Your task to perform on an android device: Go to location settings Image 0: 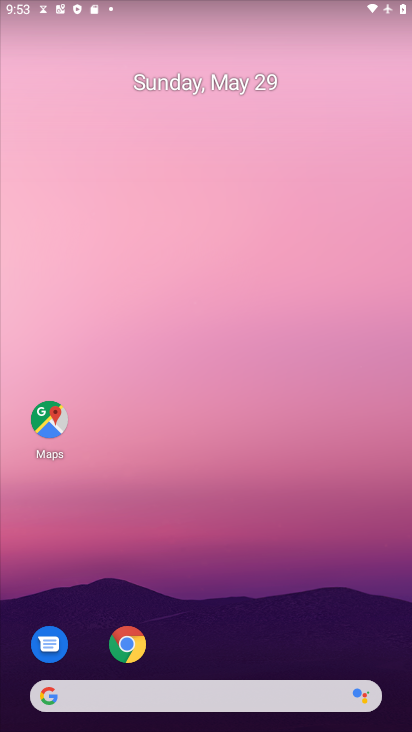
Step 0: drag from (270, 541) to (258, 218)
Your task to perform on an android device: Go to location settings Image 1: 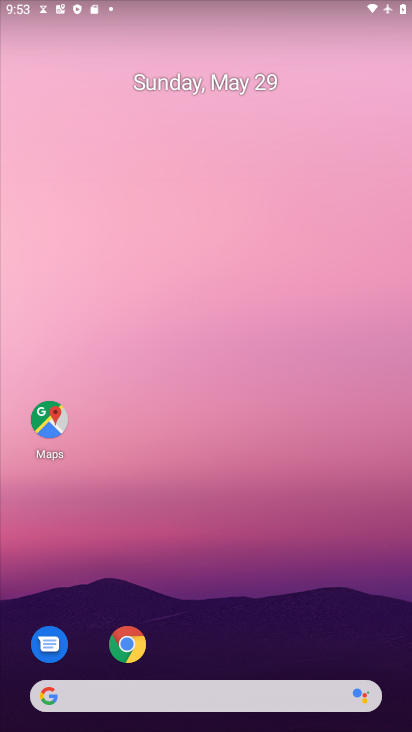
Step 1: drag from (245, 645) to (249, 190)
Your task to perform on an android device: Go to location settings Image 2: 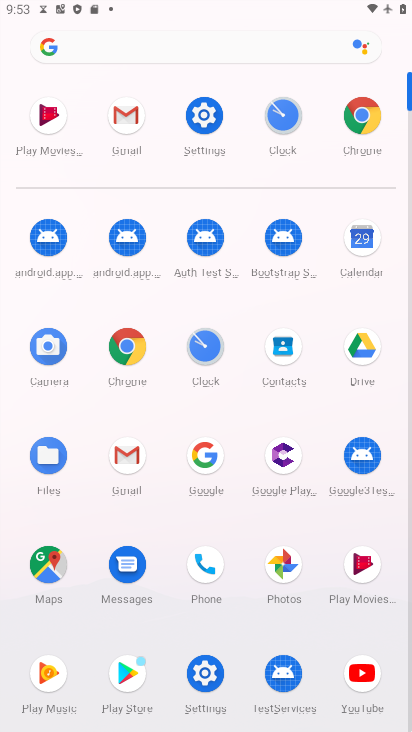
Step 2: click (193, 110)
Your task to perform on an android device: Go to location settings Image 3: 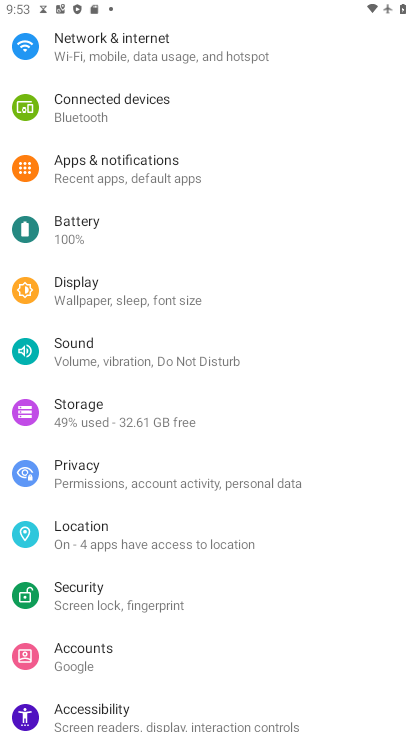
Step 3: click (133, 523)
Your task to perform on an android device: Go to location settings Image 4: 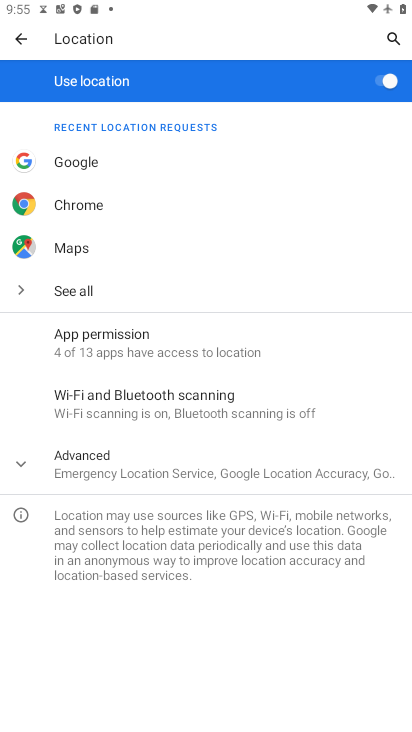
Step 4: task complete